Your task to perform on an android device: Play the last video I watched on Youtube Image 0: 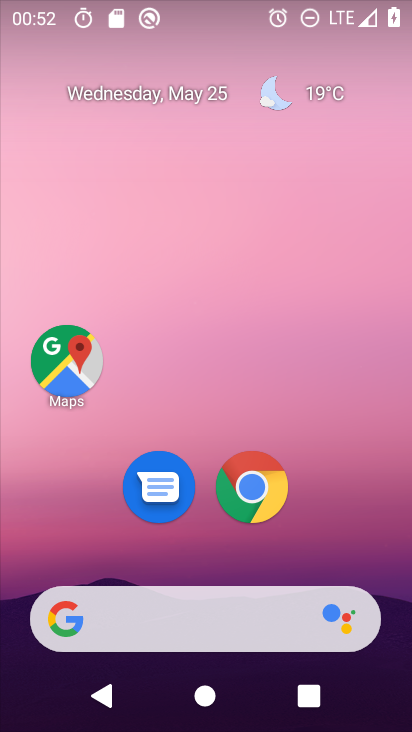
Step 0: drag from (384, 600) to (347, 19)
Your task to perform on an android device: Play the last video I watched on Youtube Image 1: 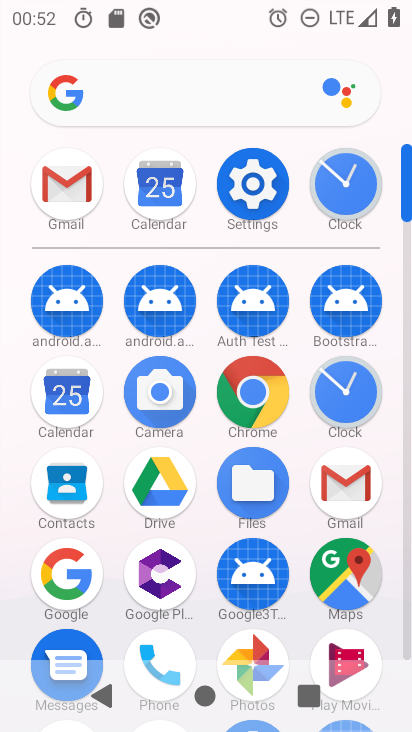
Step 1: click (403, 546)
Your task to perform on an android device: Play the last video I watched on Youtube Image 2: 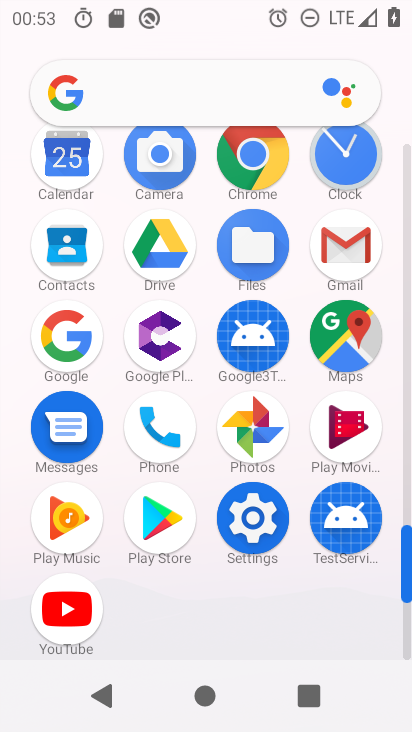
Step 2: click (65, 613)
Your task to perform on an android device: Play the last video I watched on Youtube Image 3: 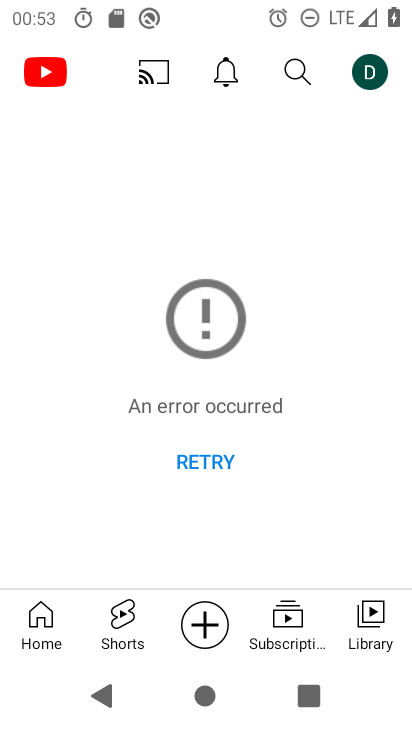
Step 3: click (368, 636)
Your task to perform on an android device: Play the last video I watched on Youtube Image 4: 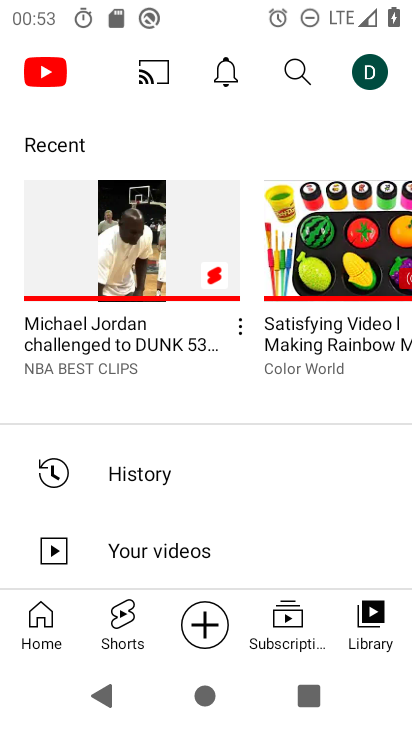
Step 4: click (82, 469)
Your task to perform on an android device: Play the last video I watched on Youtube Image 5: 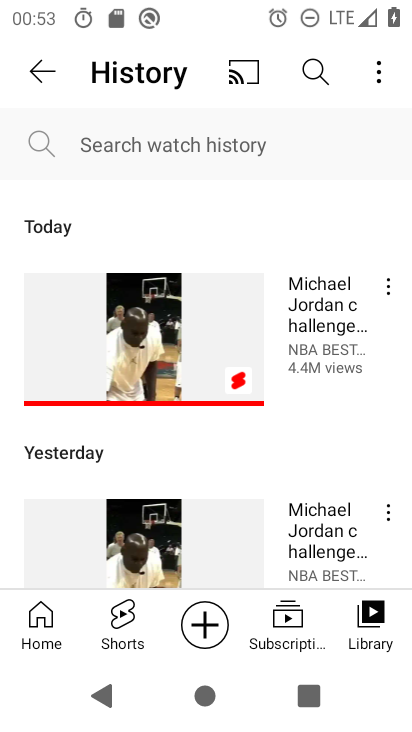
Step 5: click (115, 325)
Your task to perform on an android device: Play the last video I watched on Youtube Image 6: 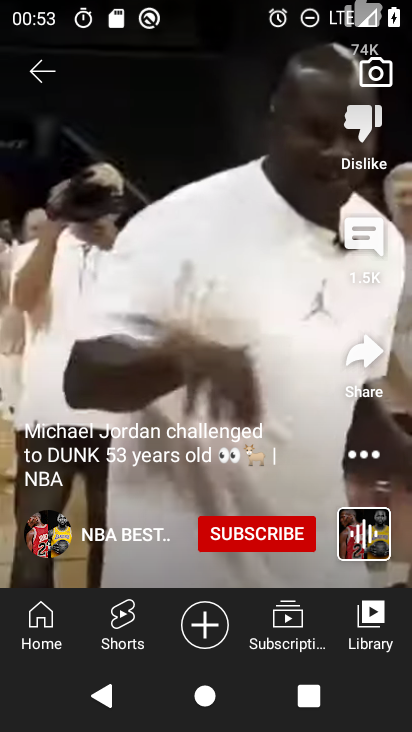
Step 6: task complete